Your task to perform on an android device: Show me the alarms in the clock app Image 0: 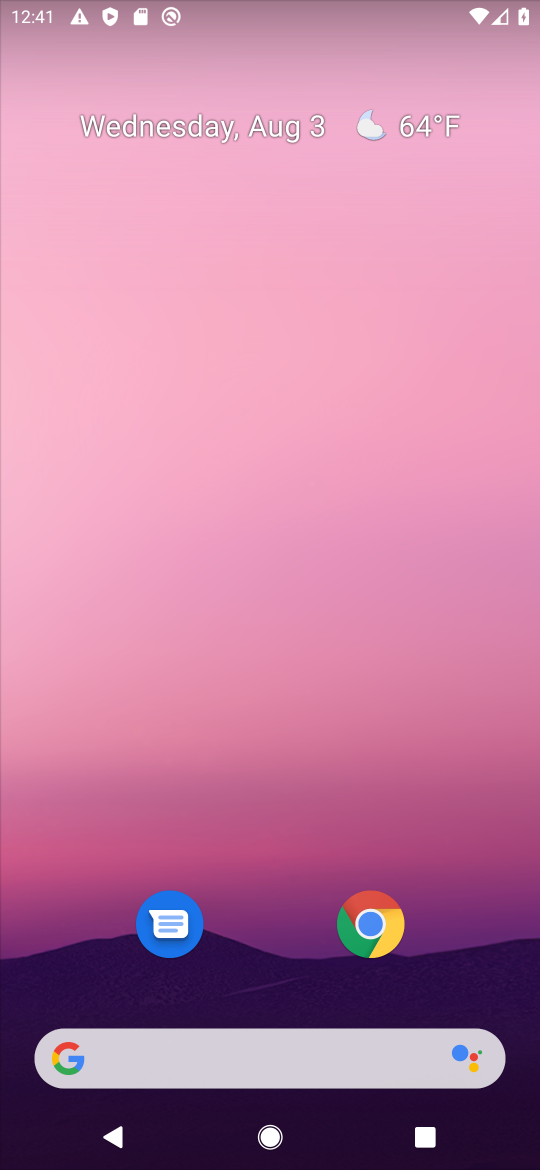
Step 0: drag from (269, 884) to (334, 1)
Your task to perform on an android device: Show me the alarms in the clock app Image 1: 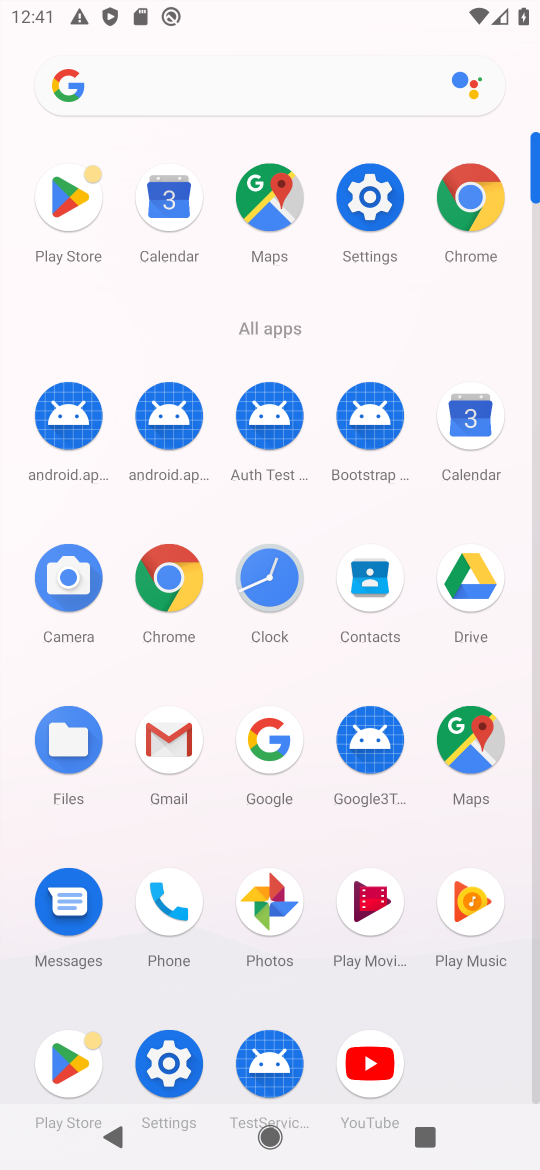
Step 1: click (260, 583)
Your task to perform on an android device: Show me the alarms in the clock app Image 2: 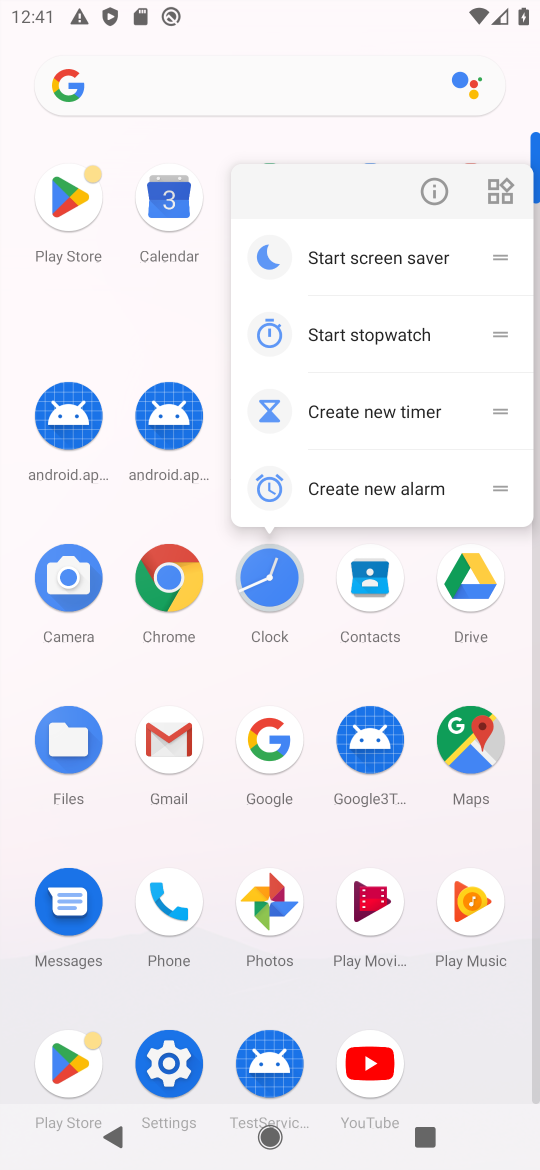
Step 2: click (268, 589)
Your task to perform on an android device: Show me the alarms in the clock app Image 3: 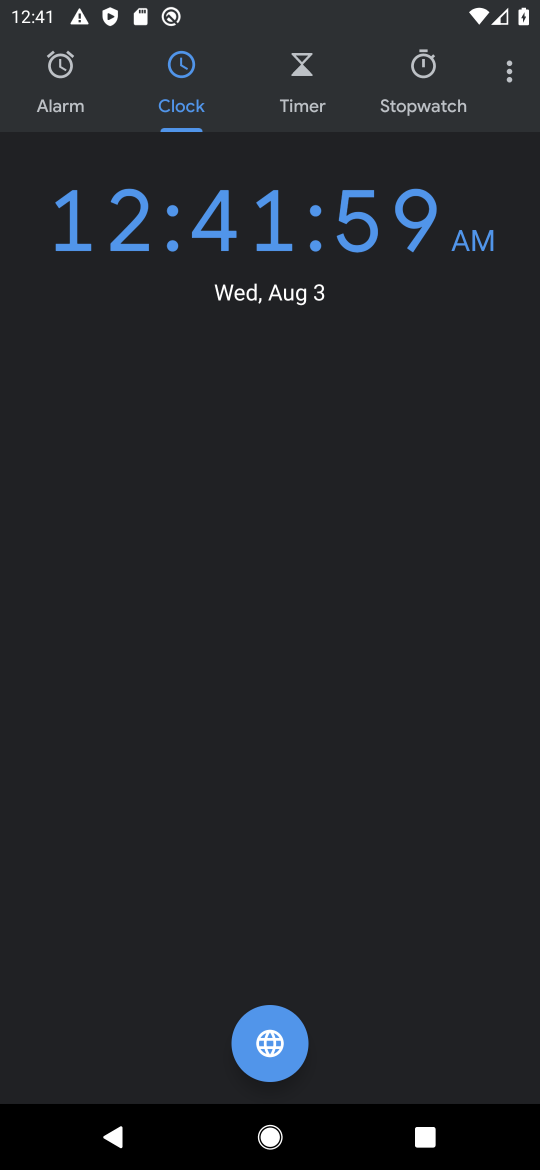
Step 3: click (53, 92)
Your task to perform on an android device: Show me the alarms in the clock app Image 4: 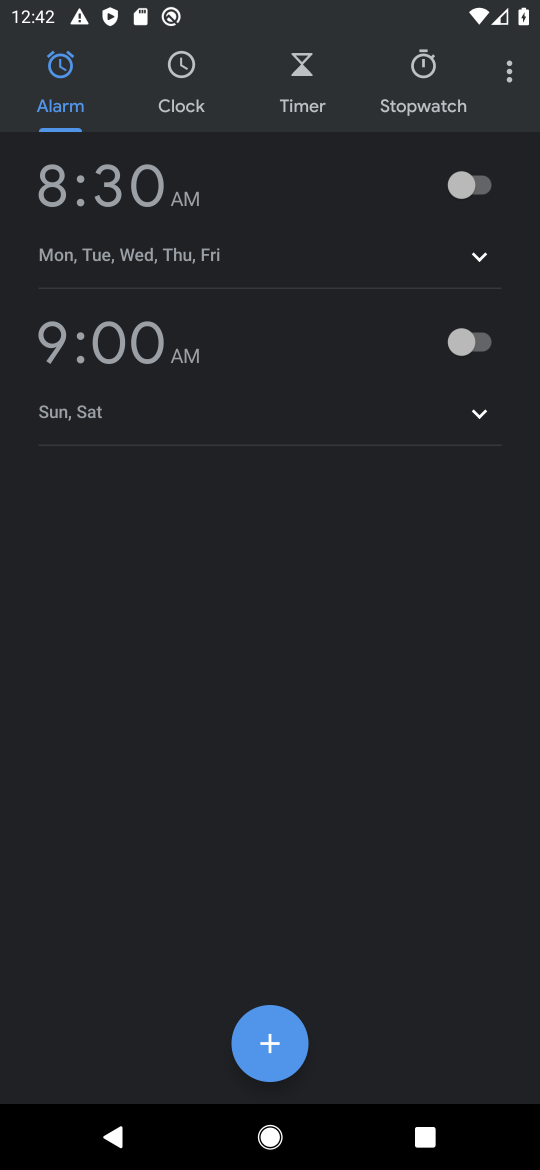
Step 4: task complete